Your task to perform on an android device: change notifications settings Image 0: 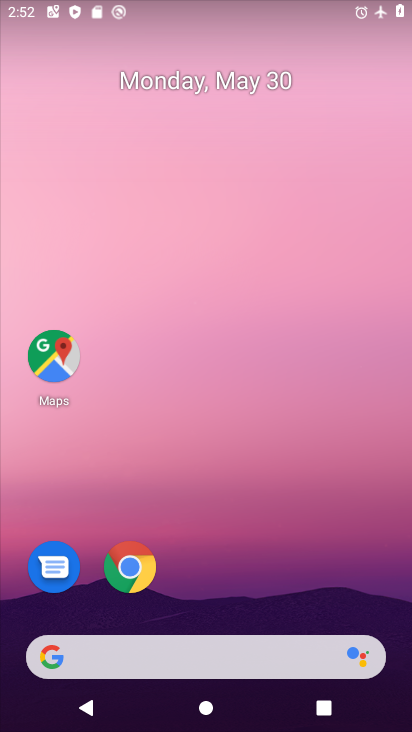
Step 0: drag from (252, 553) to (236, 53)
Your task to perform on an android device: change notifications settings Image 1: 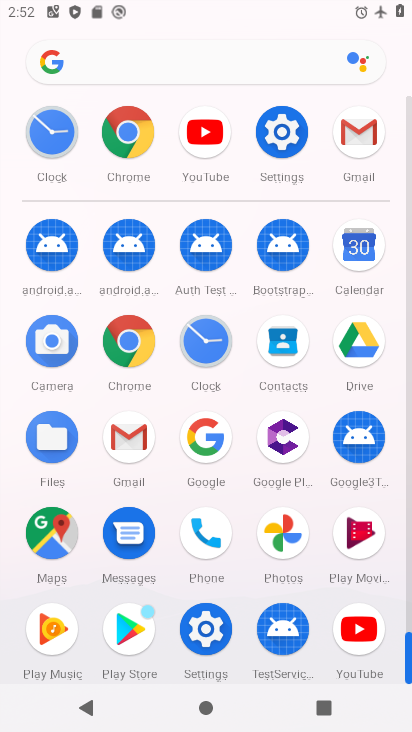
Step 1: click (293, 130)
Your task to perform on an android device: change notifications settings Image 2: 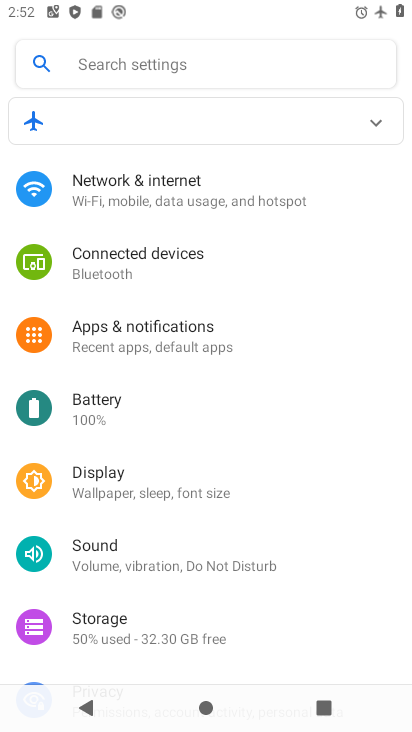
Step 2: click (180, 356)
Your task to perform on an android device: change notifications settings Image 3: 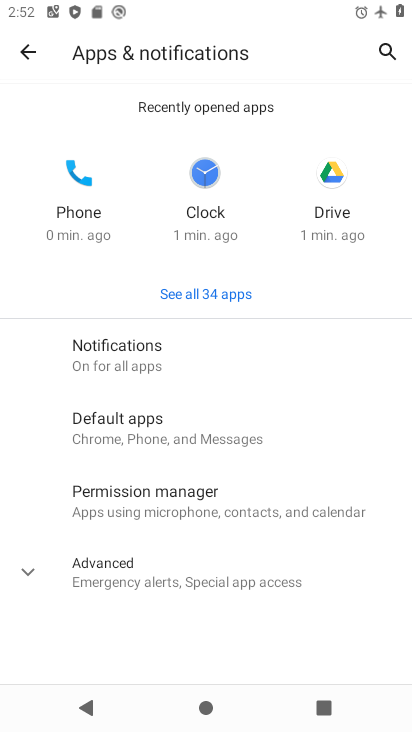
Step 3: click (145, 345)
Your task to perform on an android device: change notifications settings Image 4: 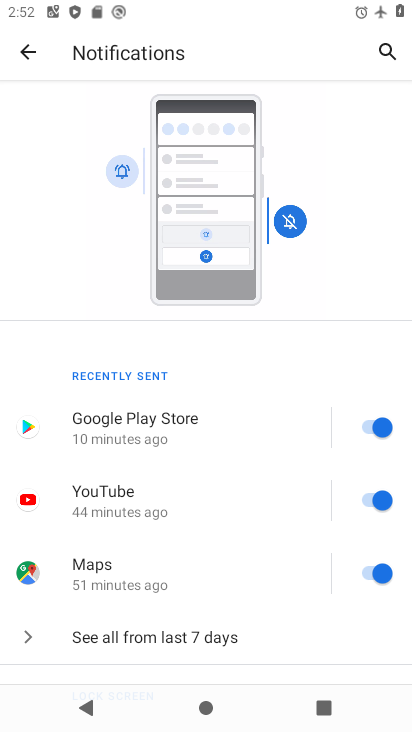
Step 4: click (190, 614)
Your task to perform on an android device: change notifications settings Image 5: 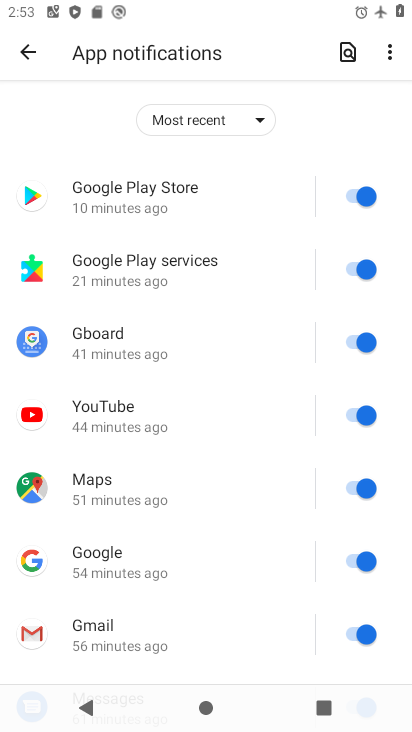
Step 5: click (345, 189)
Your task to perform on an android device: change notifications settings Image 6: 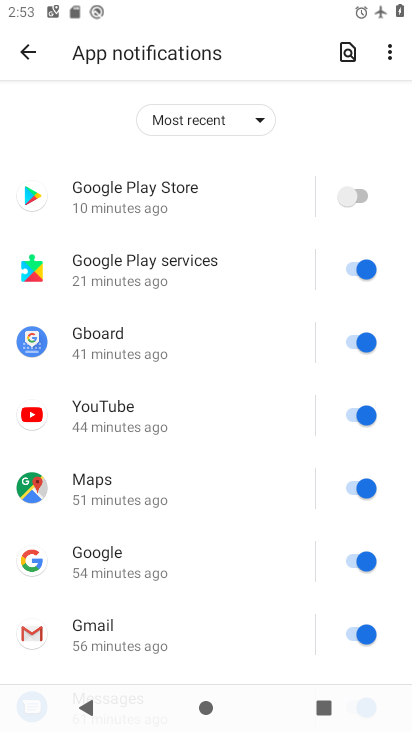
Step 6: click (348, 265)
Your task to perform on an android device: change notifications settings Image 7: 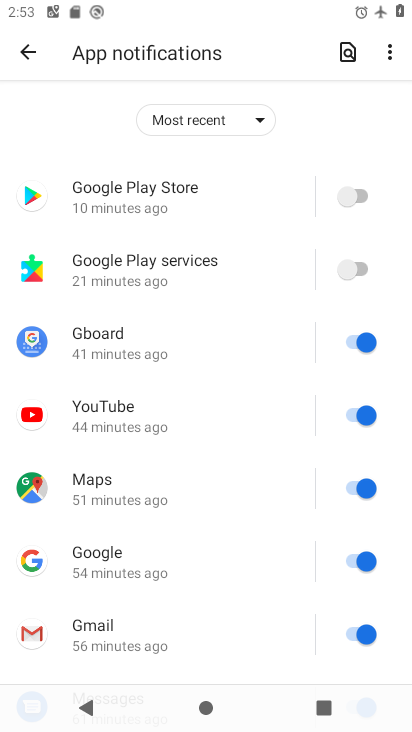
Step 7: click (351, 349)
Your task to perform on an android device: change notifications settings Image 8: 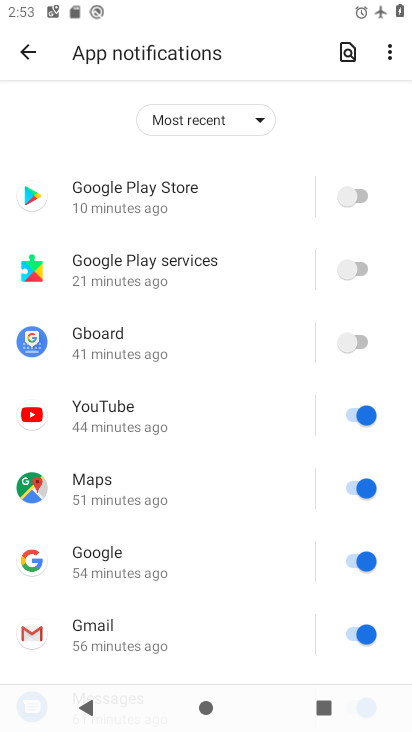
Step 8: click (349, 437)
Your task to perform on an android device: change notifications settings Image 9: 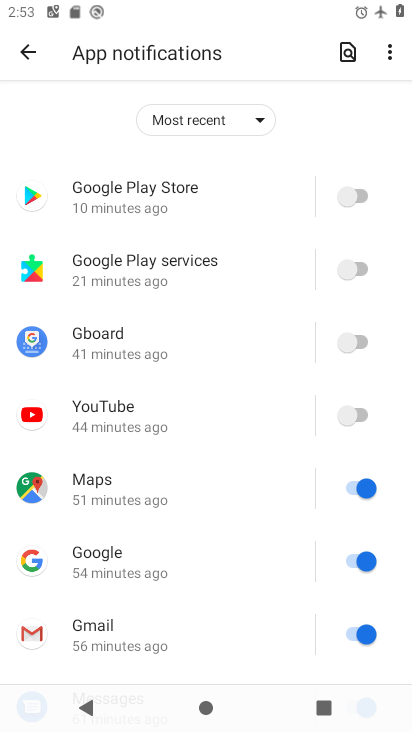
Step 9: click (350, 485)
Your task to perform on an android device: change notifications settings Image 10: 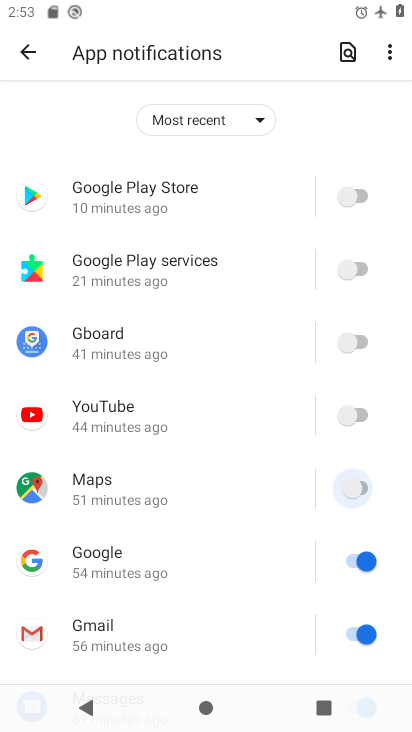
Step 10: click (348, 579)
Your task to perform on an android device: change notifications settings Image 11: 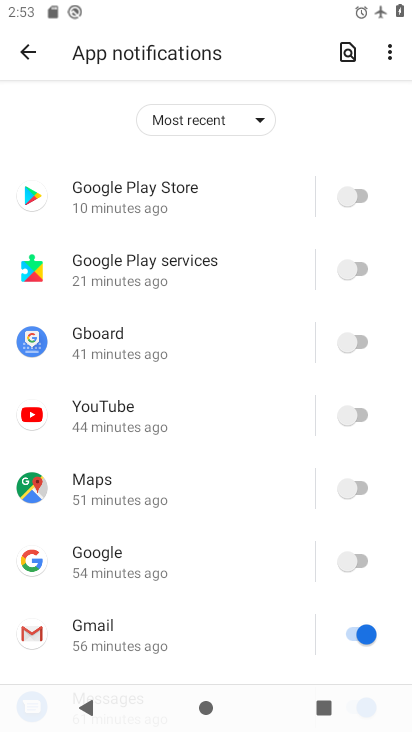
Step 11: click (352, 671)
Your task to perform on an android device: change notifications settings Image 12: 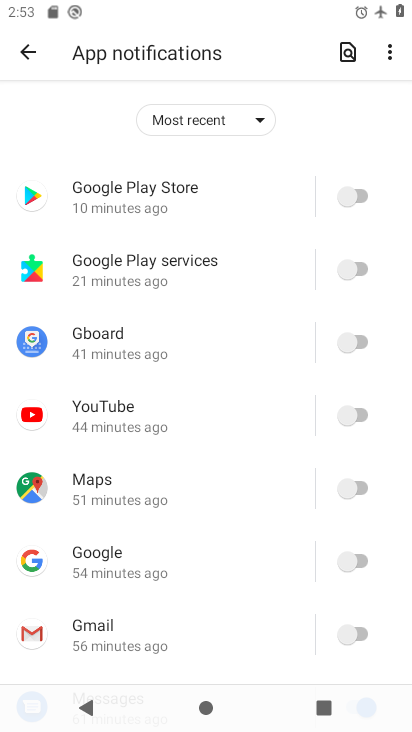
Step 12: drag from (226, 537) to (312, 34)
Your task to perform on an android device: change notifications settings Image 13: 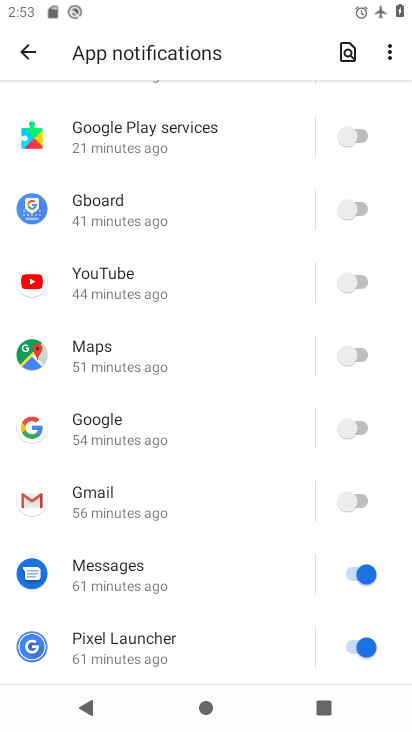
Step 13: click (360, 569)
Your task to perform on an android device: change notifications settings Image 14: 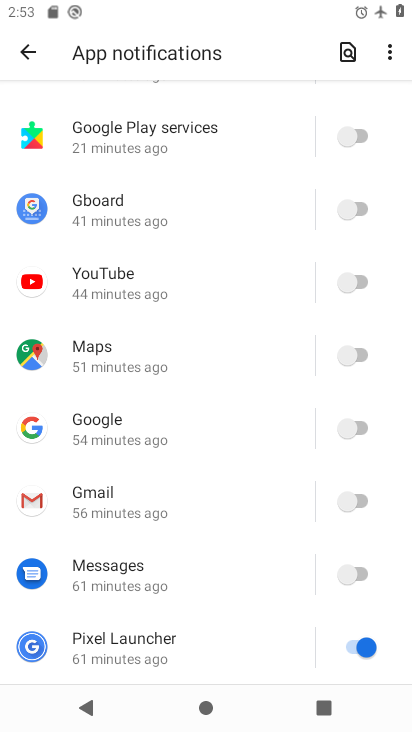
Step 14: click (351, 655)
Your task to perform on an android device: change notifications settings Image 15: 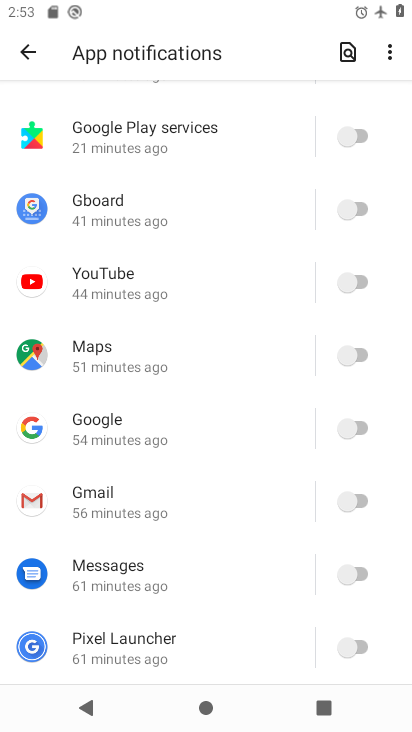
Step 15: task complete